Your task to perform on an android device: Go to Maps Image 0: 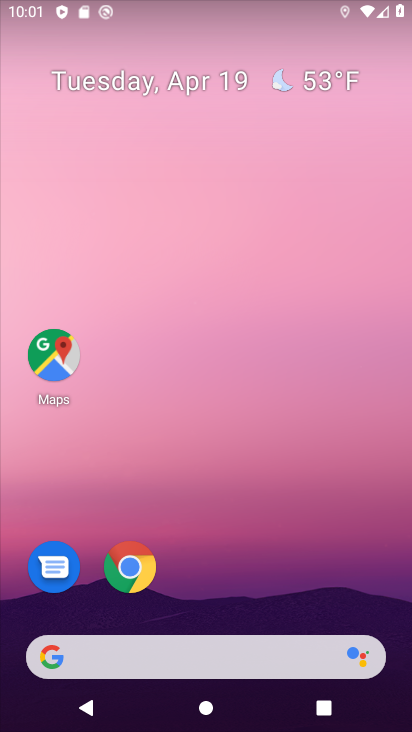
Step 0: click (61, 368)
Your task to perform on an android device: Go to Maps Image 1: 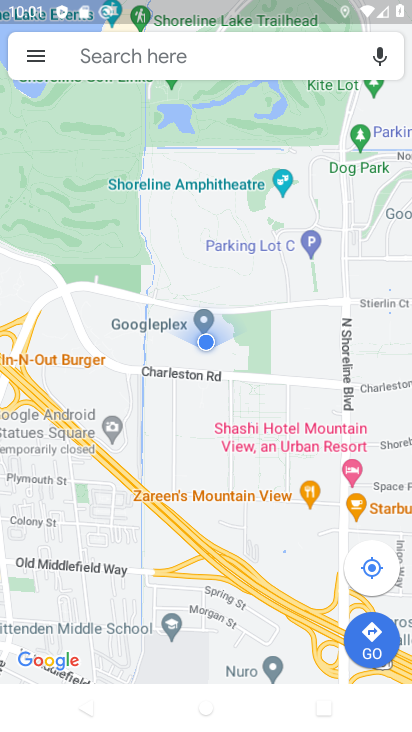
Step 1: task complete